Your task to perform on an android device: change your default location settings in chrome Image 0: 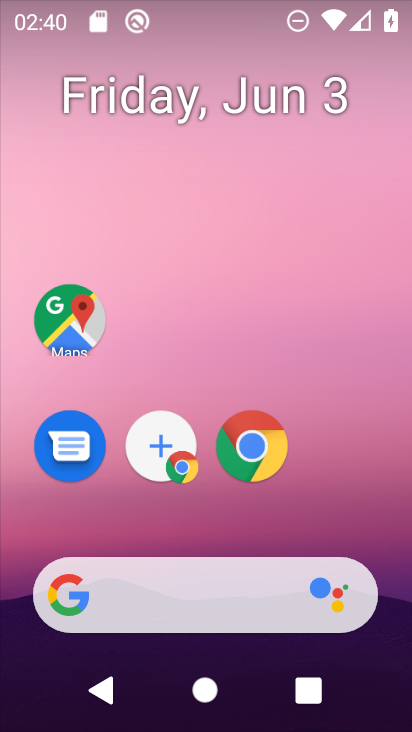
Step 0: click (261, 452)
Your task to perform on an android device: change your default location settings in chrome Image 1: 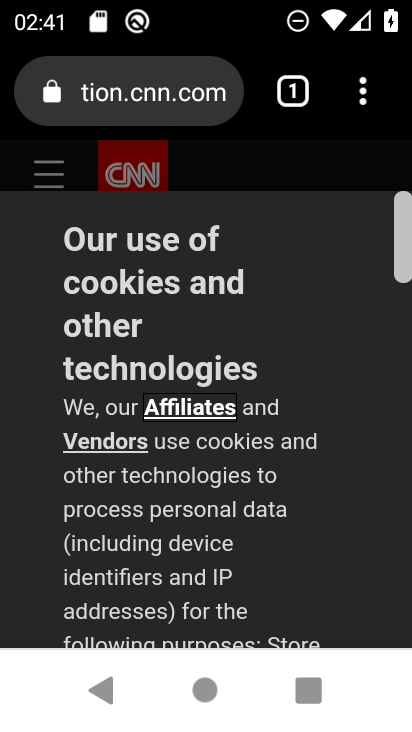
Step 1: click (369, 104)
Your task to perform on an android device: change your default location settings in chrome Image 2: 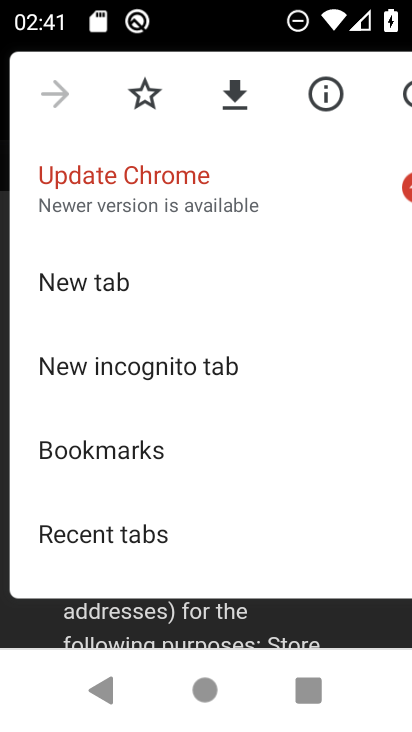
Step 2: drag from (237, 513) to (260, 30)
Your task to perform on an android device: change your default location settings in chrome Image 3: 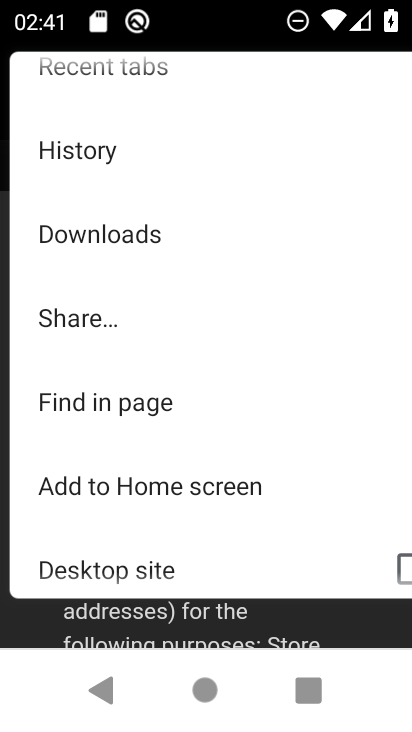
Step 3: drag from (155, 561) to (172, 124)
Your task to perform on an android device: change your default location settings in chrome Image 4: 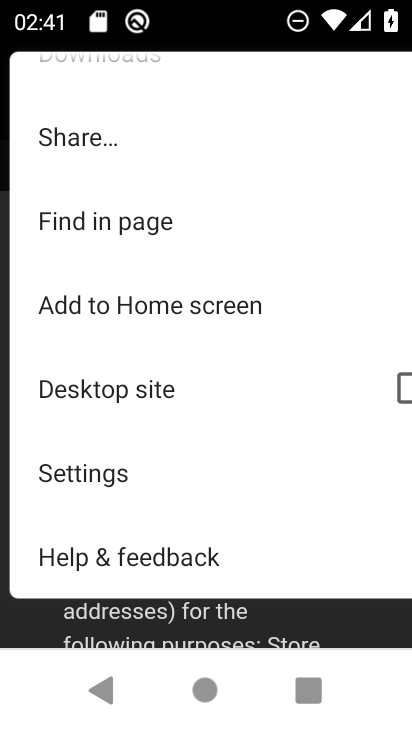
Step 4: click (131, 468)
Your task to perform on an android device: change your default location settings in chrome Image 5: 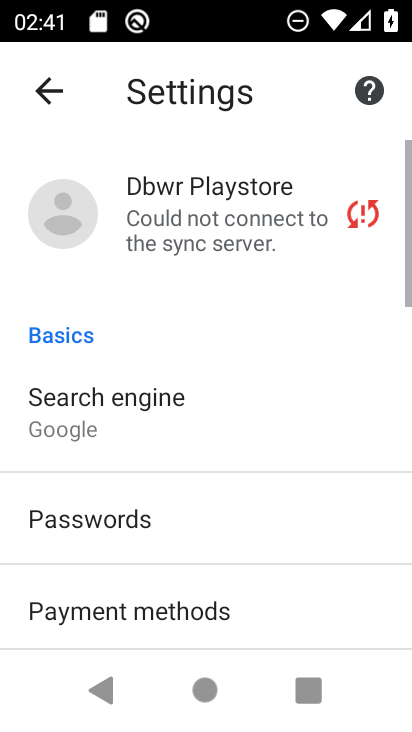
Step 5: drag from (176, 622) to (148, 242)
Your task to perform on an android device: change your default location settings in chrome Image 6: 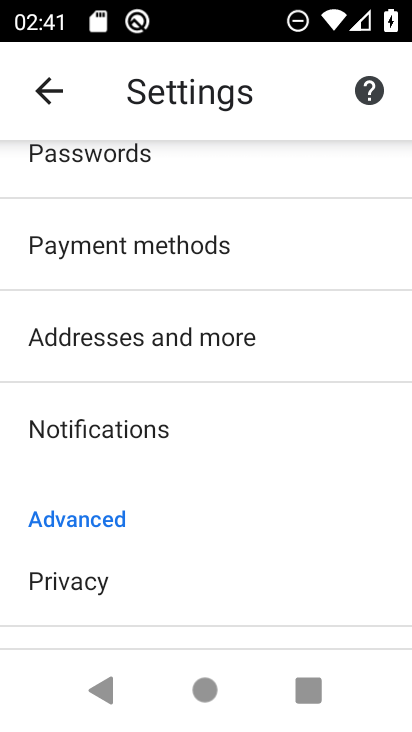
Step 6: drag from (205, 599) to (151, 210)
Your task to perform on an android device: change your default location settings in chrome Image 7: 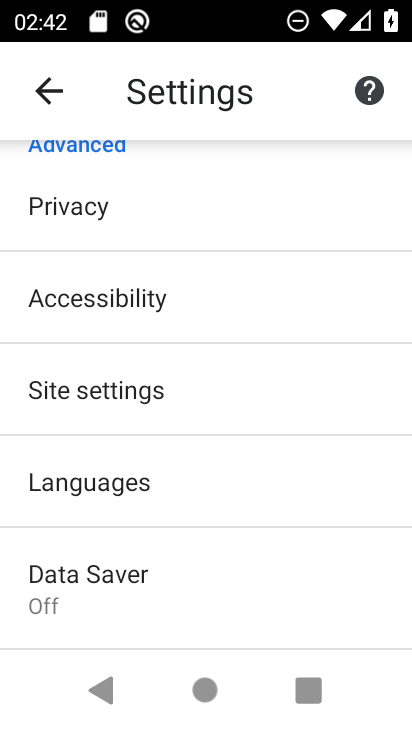
Step 7: click (122, 402)
Your task to perform on an android device: change your default location settings in chrome Image 8: 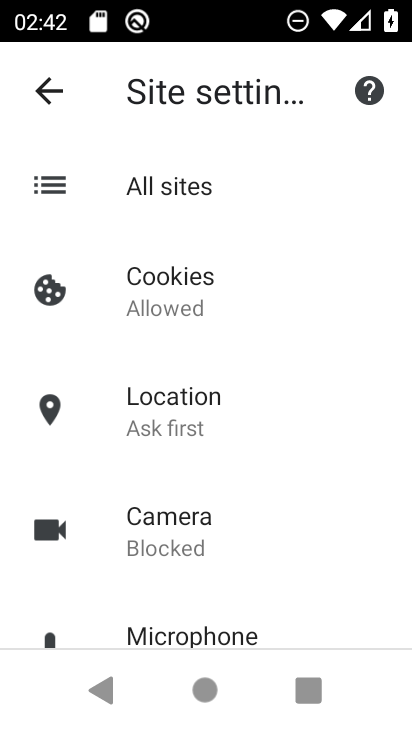
Step 8: click (195, 408)
Your task to perform on an android device: change your default location settings in chrome Image 9: 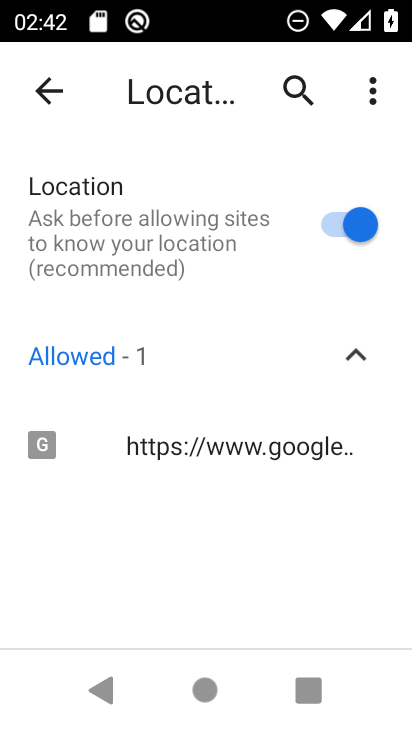
Step 9: click (349, 232)
Your task to perform on an android device: change your default location settings in chrome Image 10: 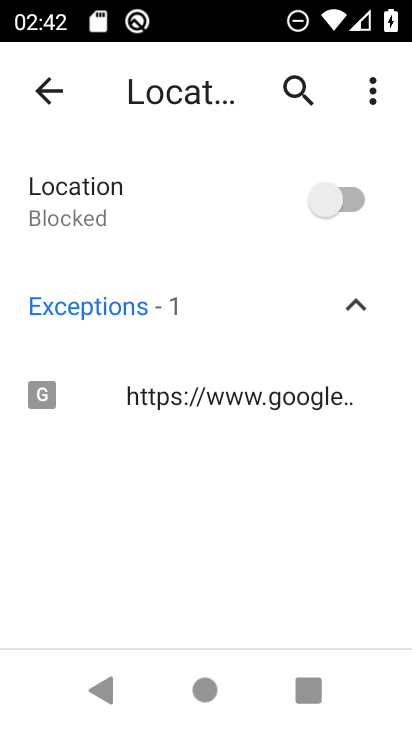
Step 10: task complete